Your task to perform on an android device: Go to Yahoo.com Image 0: 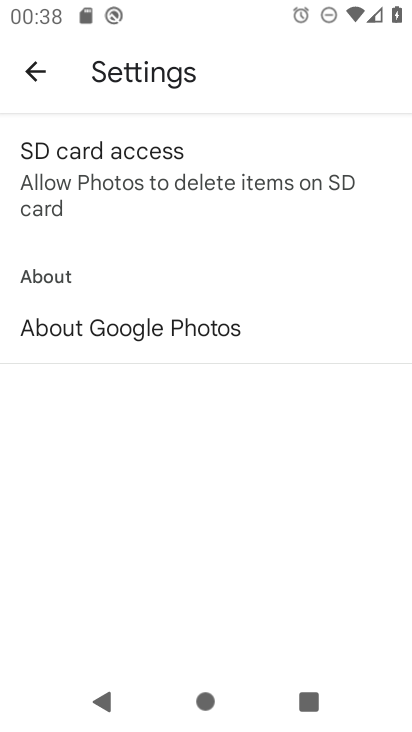
Step 0: press home button
Your task to perform on an android device: Go to Yahoo.com Image 1: 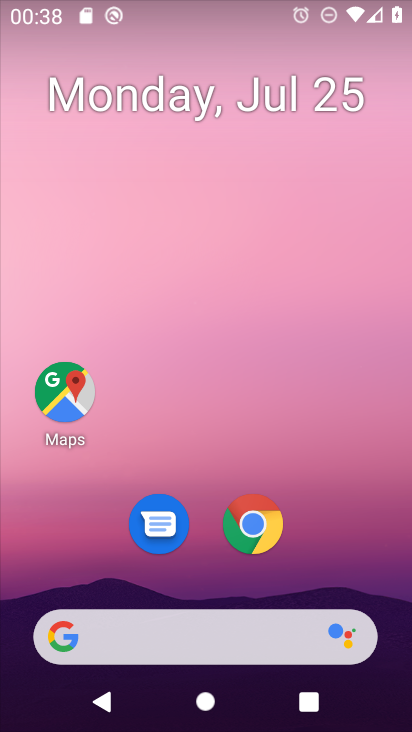
Step 1: click (259, 526)
Your task to perform on an android device: Go to Yahoo.com Image 2: 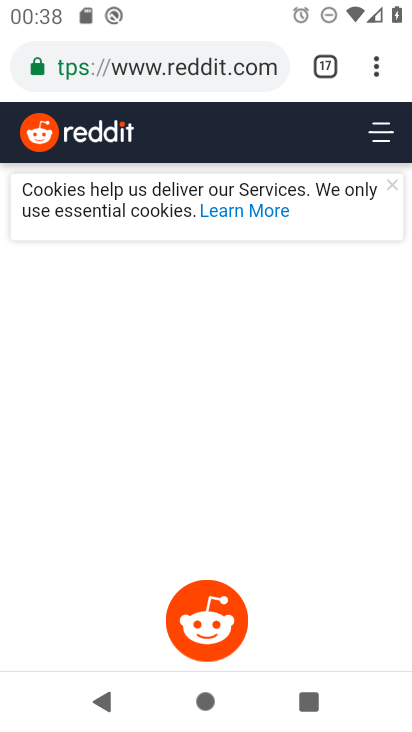
Step 2: drag from (375, 71) to (247, 128)
Your task to perform on an android device: Go to Yahoo.com Image 3: 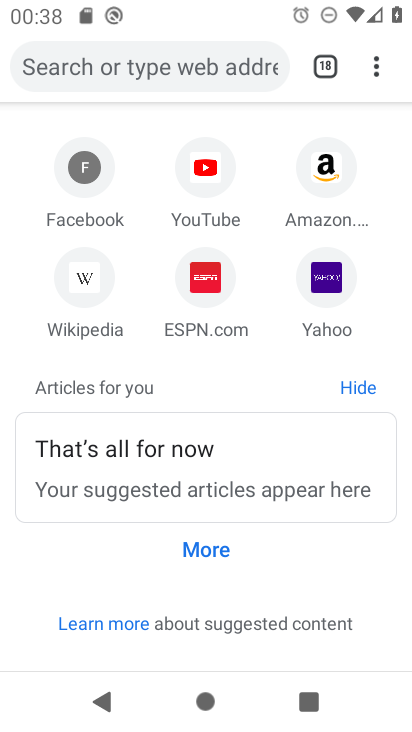
Step 3: click (324, 275)
Your task to perform on an android device: Go to Yahoo.com Image 4: 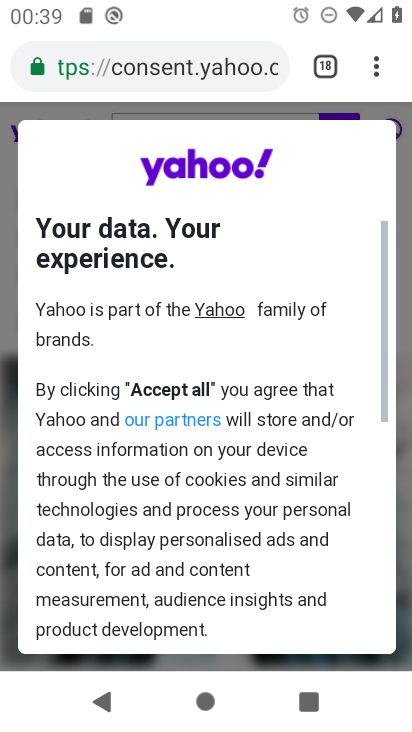
Step 4: drag from (210, 553) to (312, 144)
Your task to perform on an android device: Go to Yahoo.com Image 5: 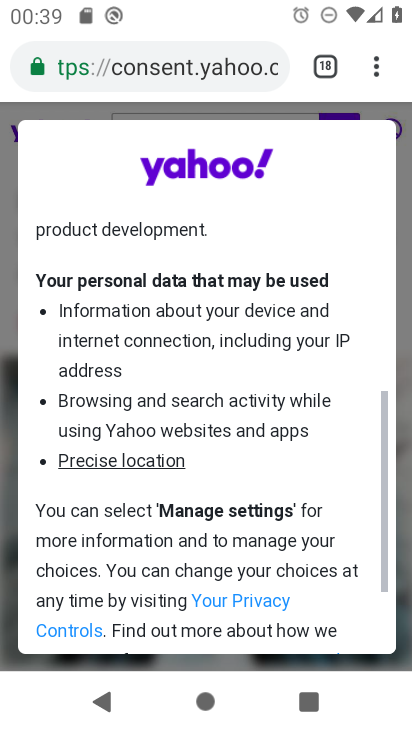
Step 5: drag from (127, 584) to (330, 133)
Your task to perform on an android device: Go to Yahoo.com Image 6: 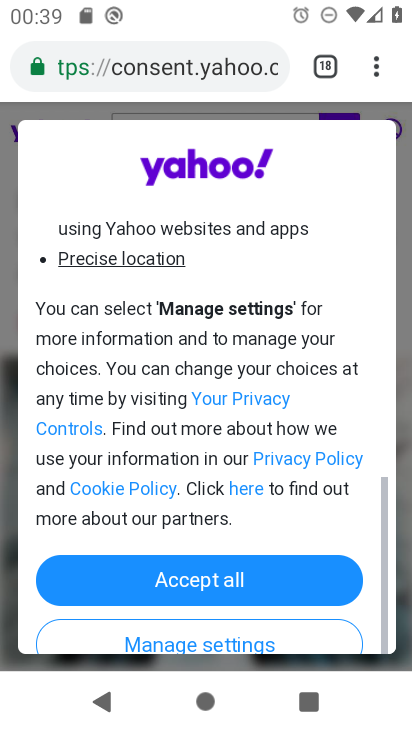
Step 6: click (198, 580)
Your task to perform on an android device: Go to Yahoo.com Image 7: 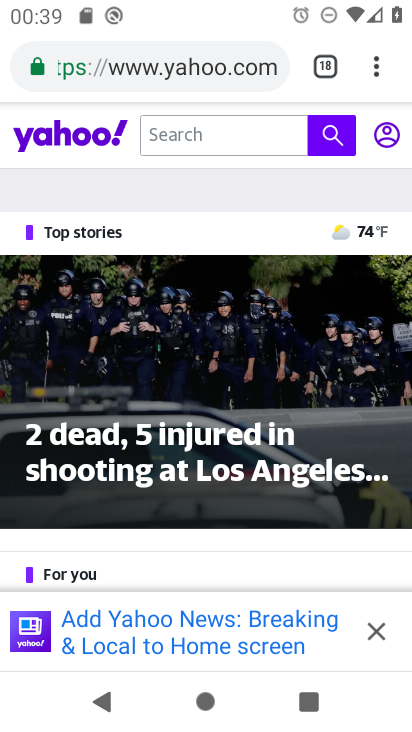
Step 7: task complete